Your task to perform on an android device: refresh tabs in the chrome app Image 0: 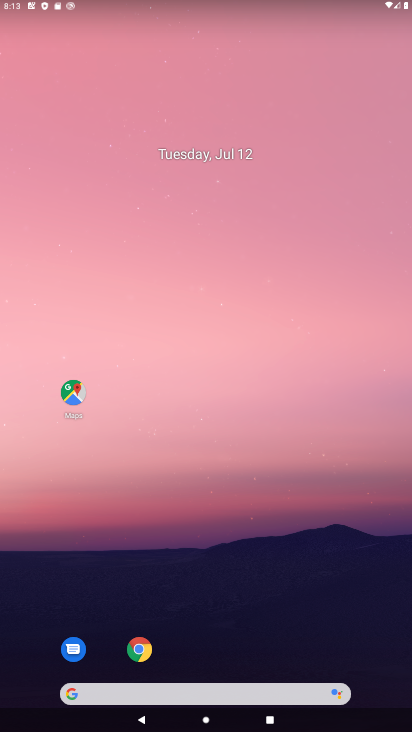
Step 0: click (139, 647)
Your task to perform on an android device: refresh tabs in the chrome app Image 1: 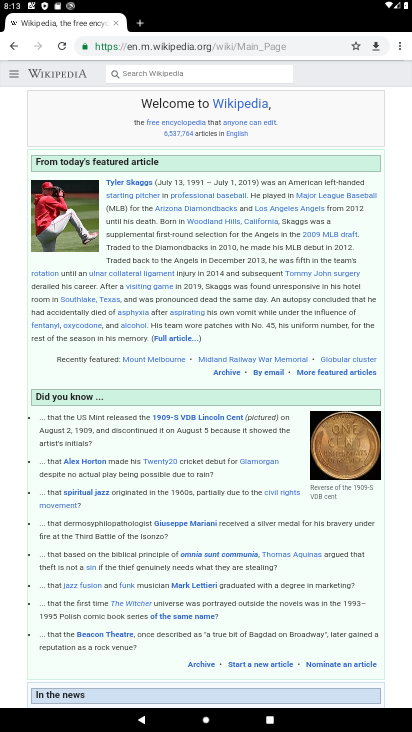
Step 1: click (60, 47)
Your task to perform on an android device: refresh tabs in the chrome app Image 2: 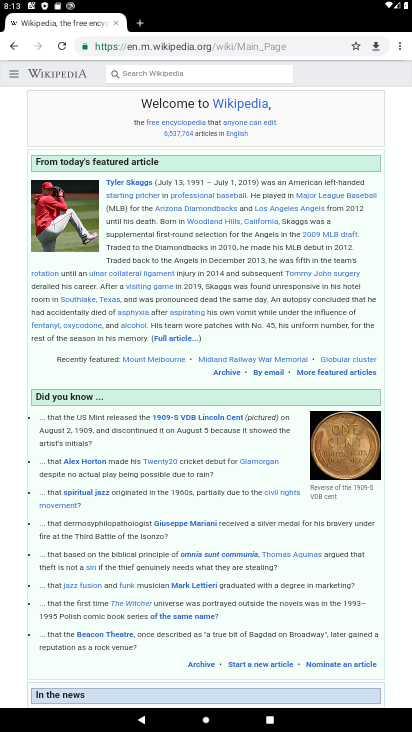
Step 2: task complete